Your task to perform on an android device: Show me popular videos on Youtube Image 0: 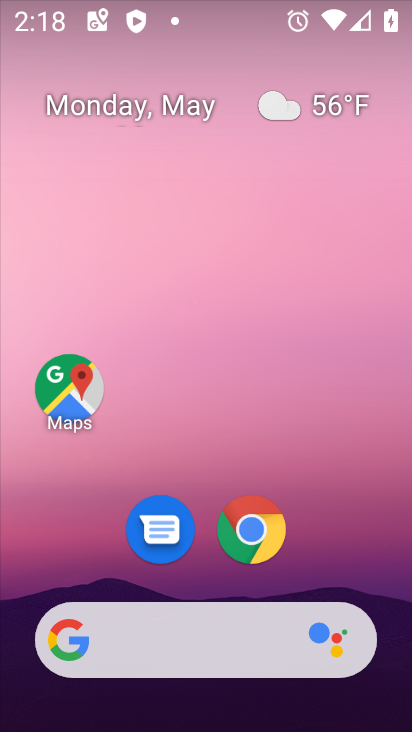
Step 0: drag from (370, 565) to (348, 0)
Your task to perform on an android device: Show me popular videos on Youtube Image 1: 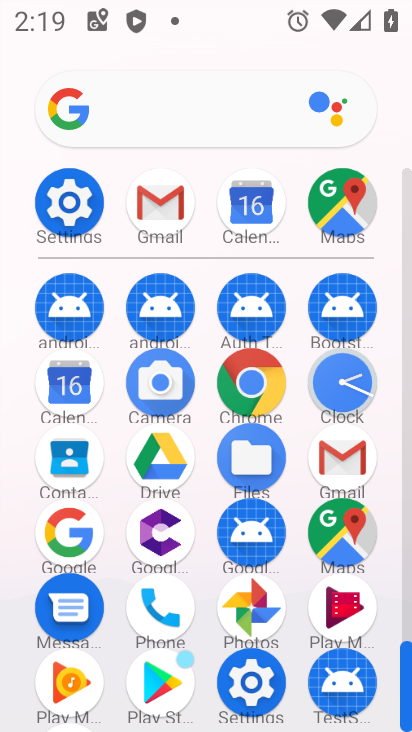
Step 1: drag from (197, 575) to (171, 212)
Your task to perform on an android device: Show me popular videos on Youtube Image 2: 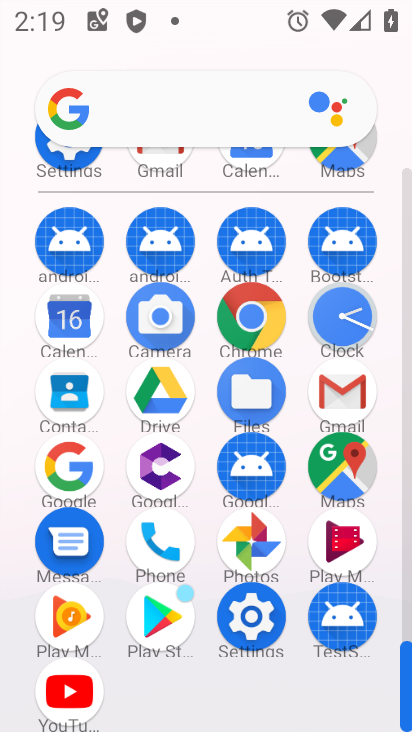
Step 2: click (60, 698)
Your task to perform on an android device: Show me popular videos on Youtube Image 3: 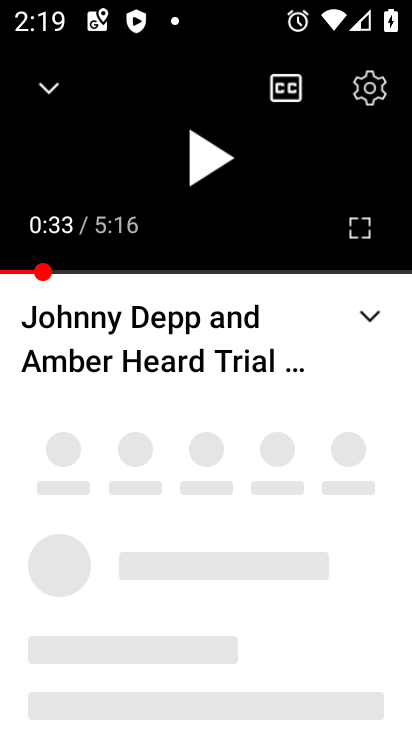
Step 3: click (41, 89)
Your task to perform on an android device: Show me popular videos on Youtube Image 4: 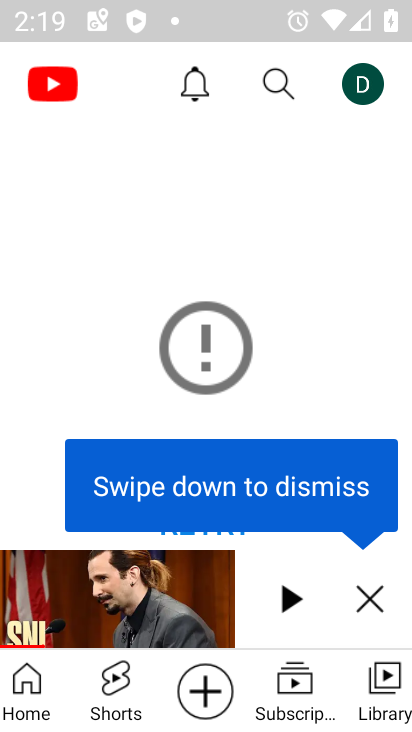
Step 4: click (52, 692)
Your task to perform on an android device: Show me popular videos on Youtube Image 5: 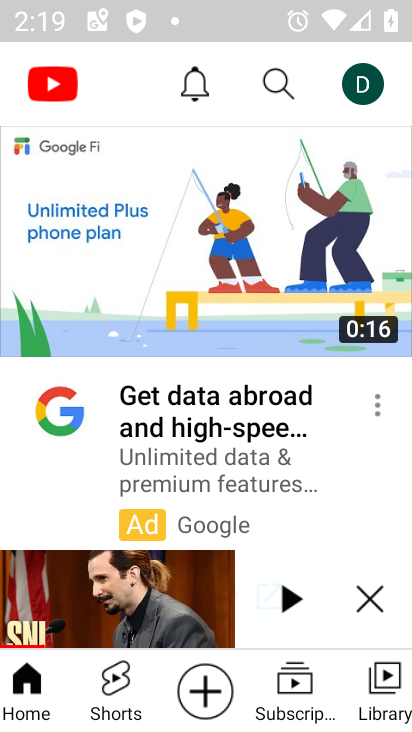
Step 5: drag from (158, 169) to (238, 564)
Your task to perform on an android device: Show me popular videos on Youtube Image 6: 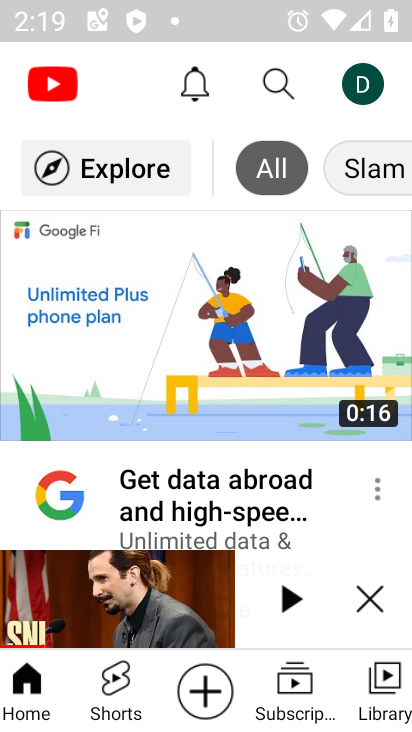
Step 6: click (123, 169)
Your task to perform on an android device: Show me popular videos on Youtube Image 7: 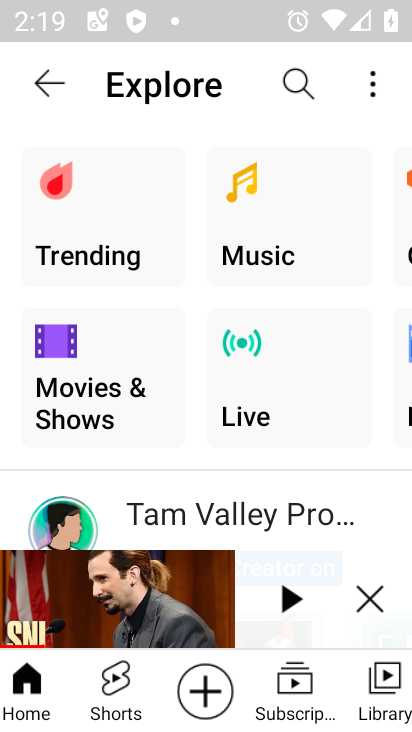
Step 7: click (89, 222)
Your task to perform on an android device: Show me popular videos on Youtube Image 8: 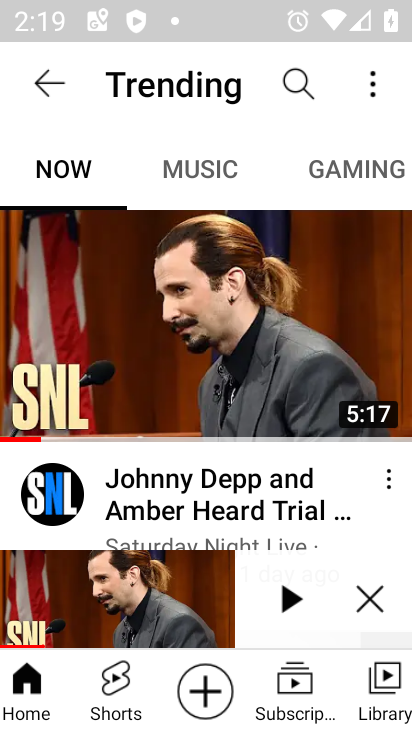
Step 8: task complete